Your task to perform on an android device: Go to internet settings Image 0: 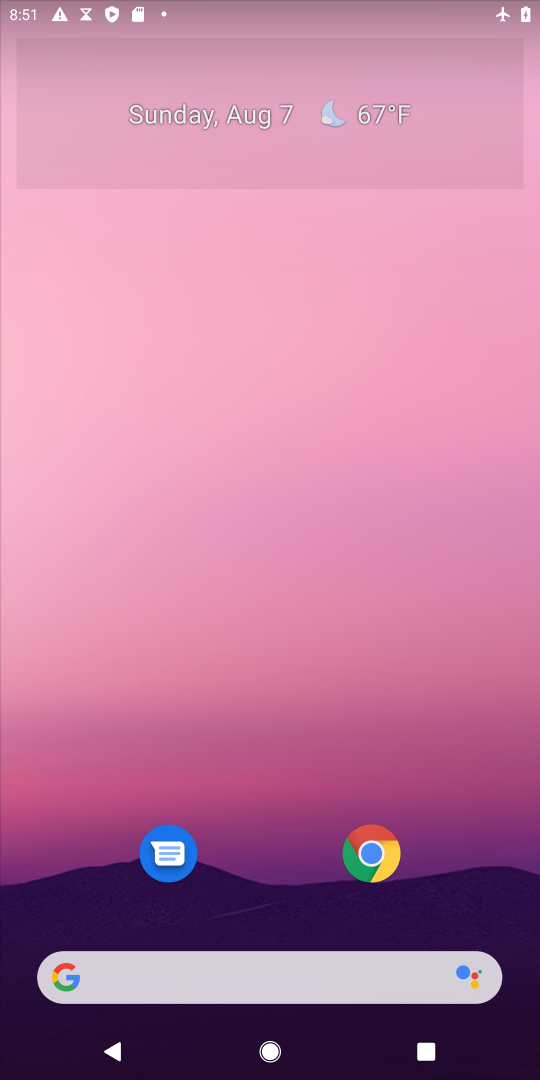
Step 0: press home button
Your task to perform on an android device: Go to internet settings Image 1: 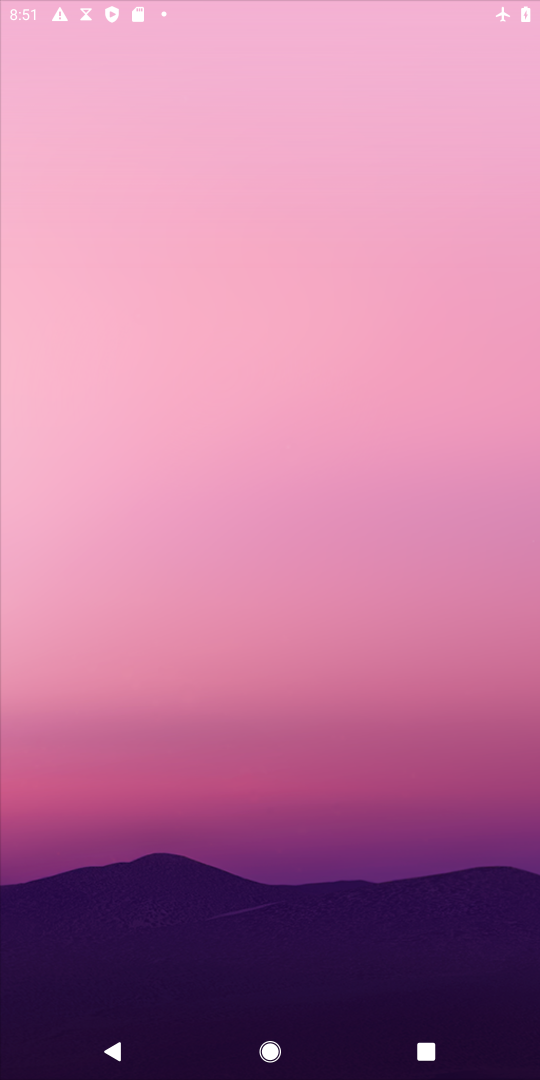
Step 1: press home button
Your task to perform on an android device: Go to internet settings Image 2: 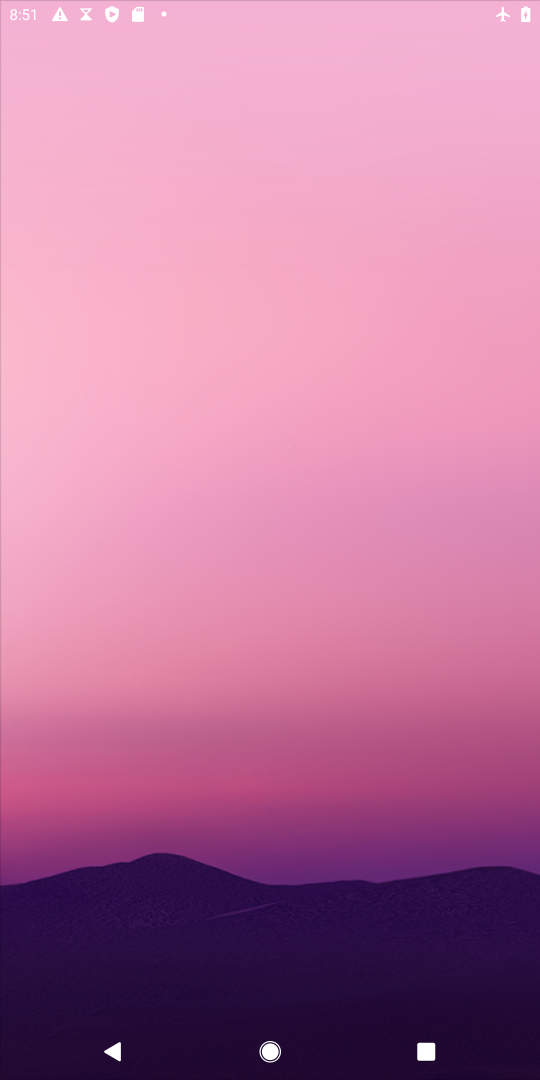
Step 2: drag from (254, 922) to (280, 382)
Your task to perform on an android device: Go to internet settings Image 3: 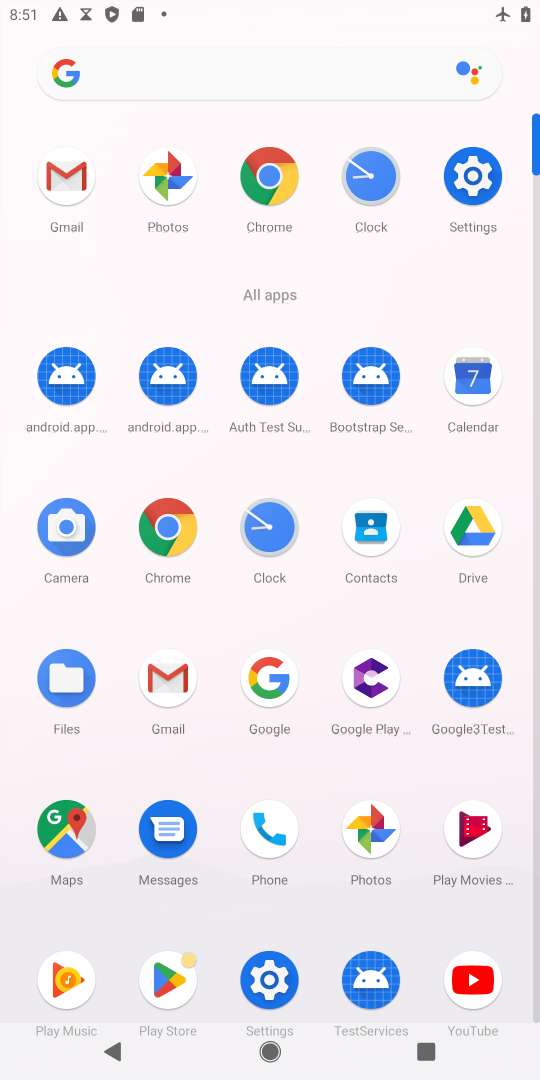
Step 3: click (477, 178)
Your task to perform on an android device: Go to internet settings Image 4: 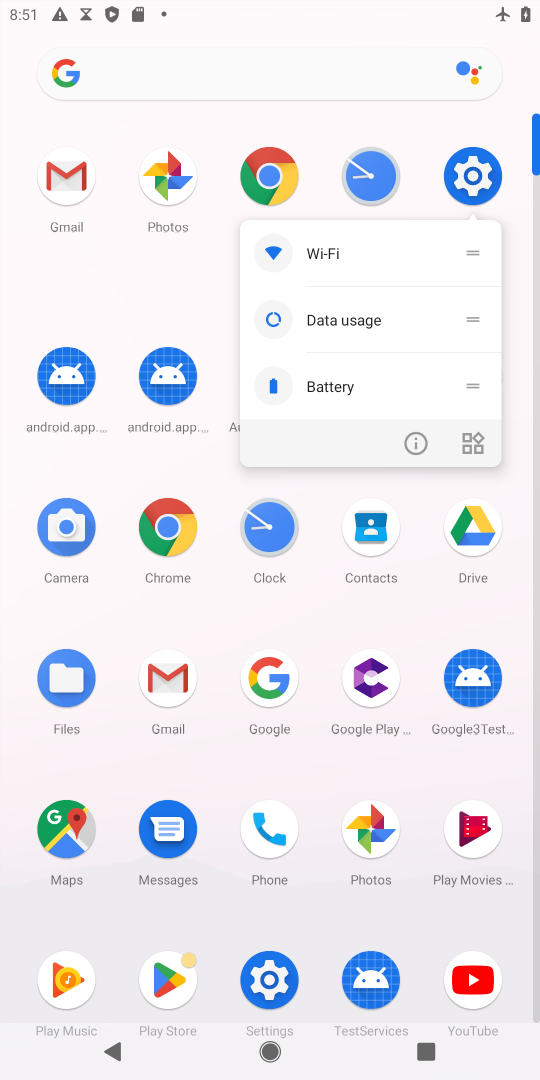
Step 4: click (477, 178)
Your task to perform on an android device: Go to internet settings Image 5: 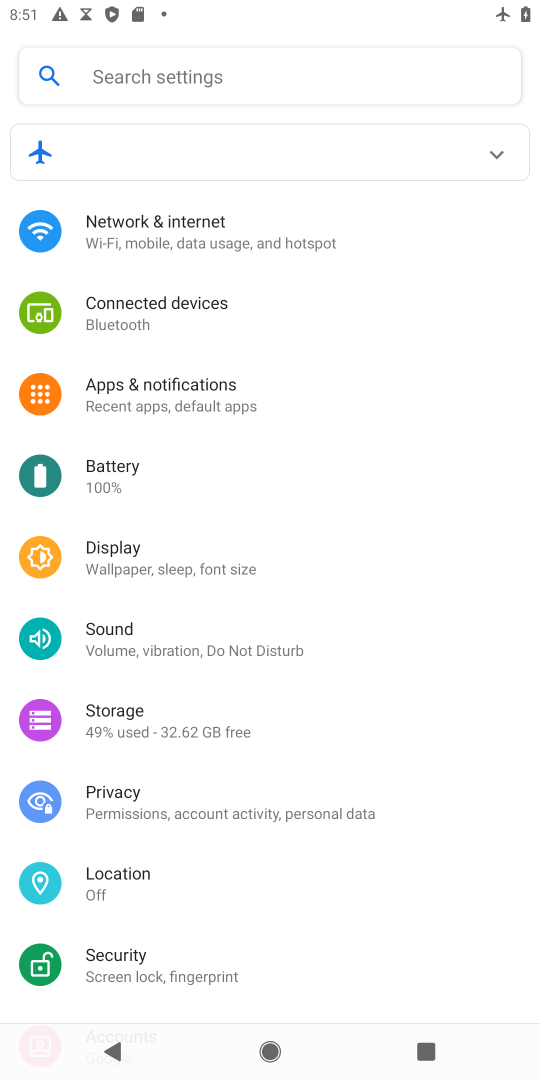
Step 5: click (171, 216)
Your task to perform on an android device: Go to internet settings Image 6: 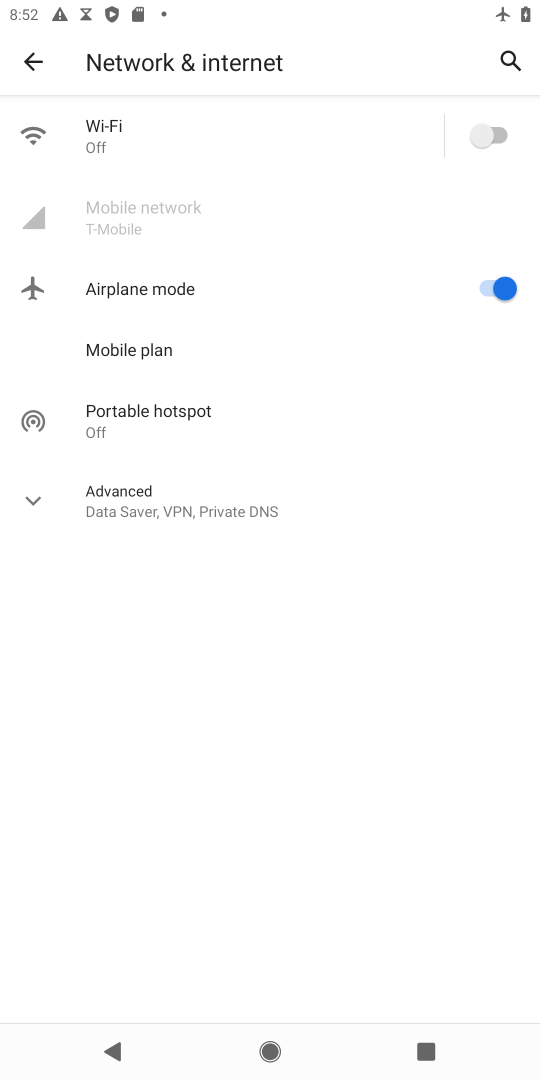
Step 6: task complete